Your task to perform on an android device: Do I have any events this weekend? Image 0: 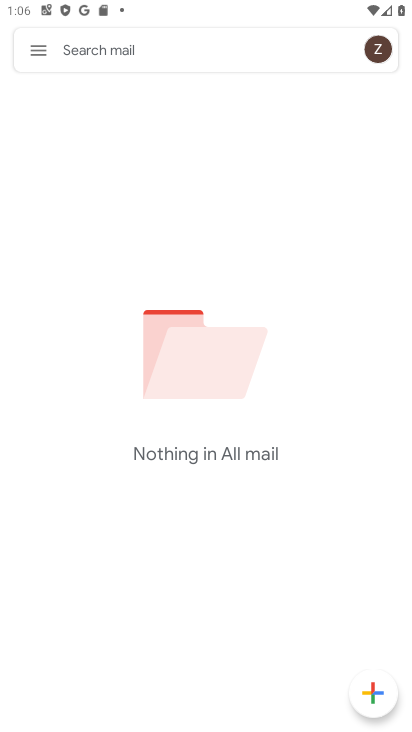
Step 0: drag from (268, 618) to (372, 34)
Your task to perform on an android device: Do I have any events this weekend? Image 1: 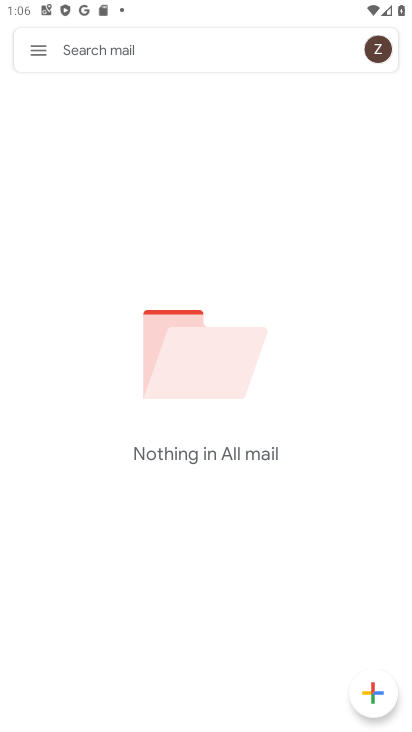
Step 1: press home button
Your task to perform on an android device: Do I have any events this weekend? Image 2: 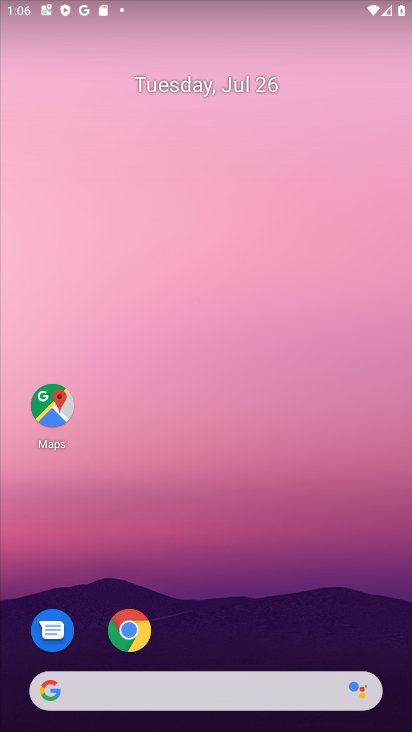
Step 2: drag from (229, 566) to (255, 58)
Your task to perform on an android device: Do I have any events this weekend? Image 3: 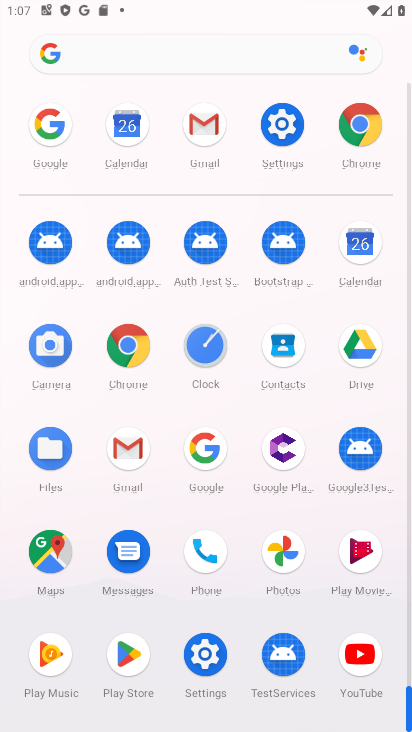
Step 3: click (359, 249)
Your task to perform on an android device: Do I have any events this weekend? Image 4: 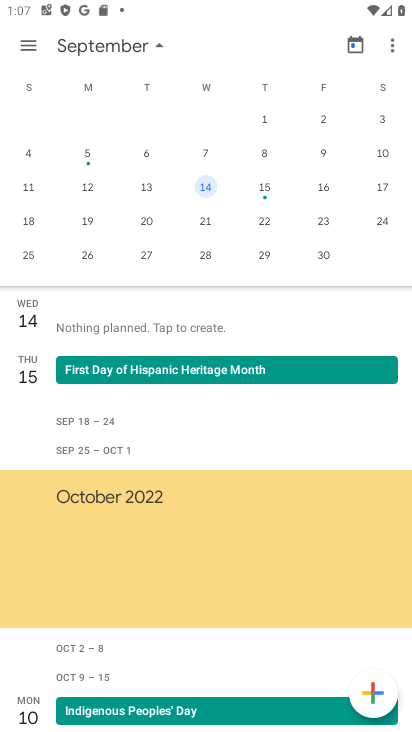
Step 4: task complete